Your task to perform on an android device: Open Google Chrome Image 0: 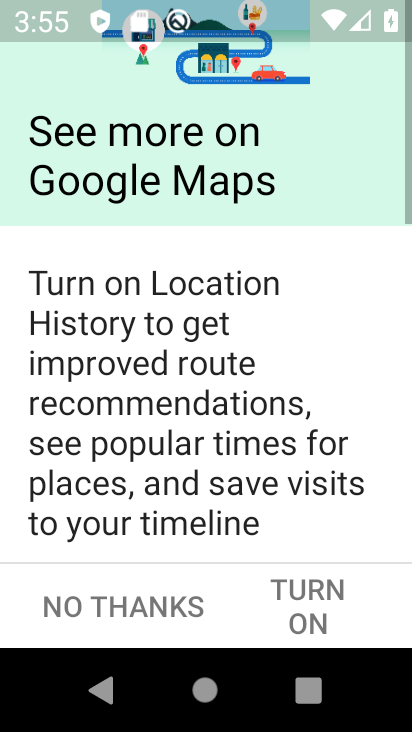
Step 0: press back button
Your task to perform on an android device: Open Google Chrome Image 1: 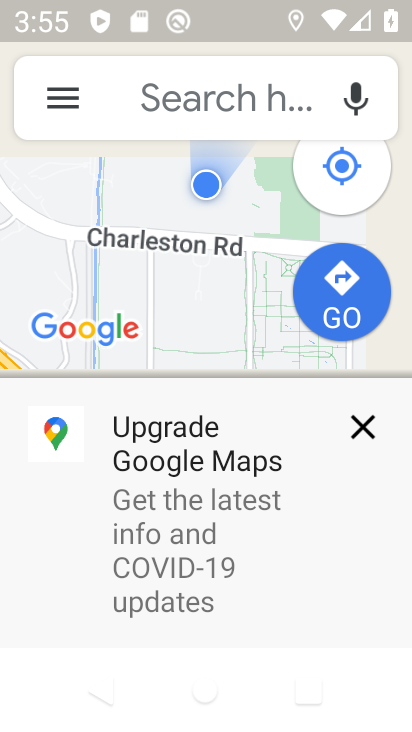
Step 1: press back button
Your task to perform on an android device: Open Google Chrome Image 2: 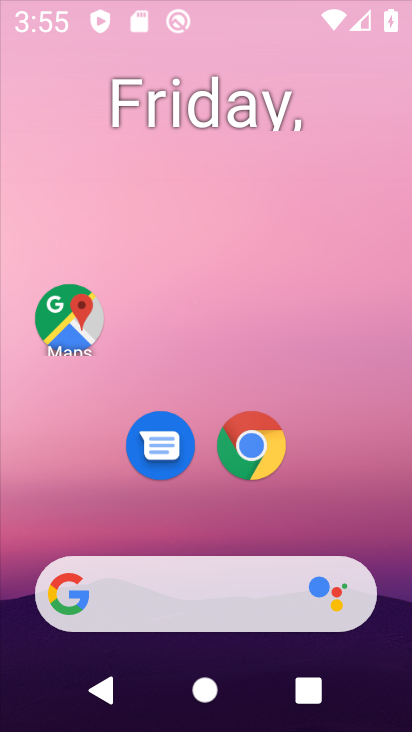
Step 2: press back button
Your task to perform on an android device: Open Google Chrome Image 3: 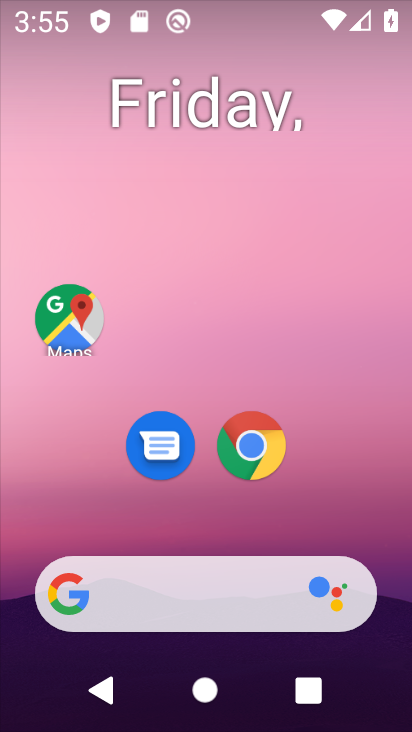
Step 3: drag from (397, 614) to (92, 8)
Your task to perform on an android device: Open Google Chrome Image 4: 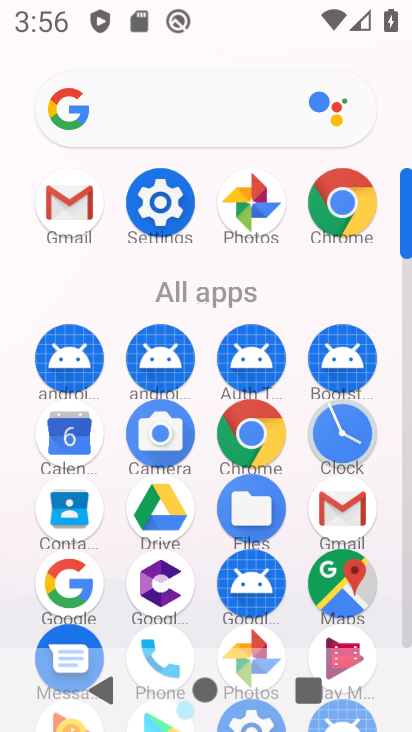
Step 4: click (343, 209)
Your task to perform on an android device: Open Google Chrome Image 5: 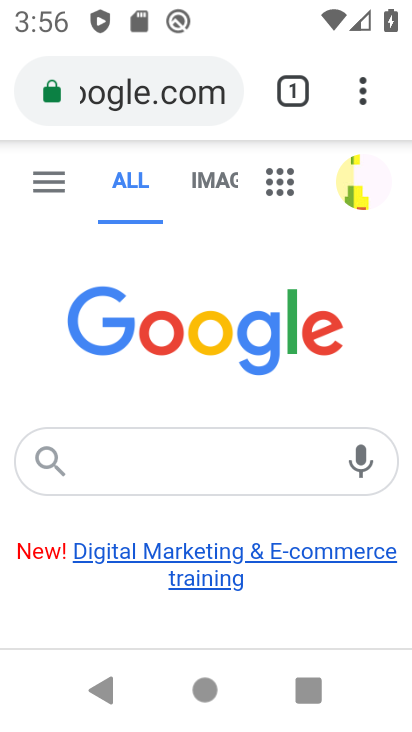
Step 5: click (136, 80)
Your task to perform on an android device: Open Google Chrome Image 6: 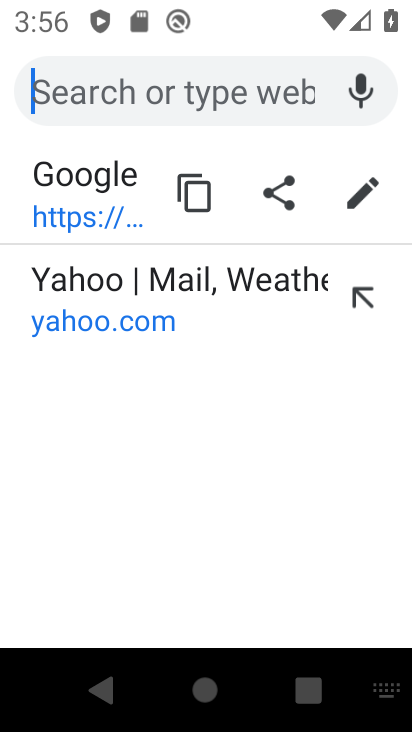
Step 6: task complete